Your task to perform on an android device: Search for a new lawnmower on Lowes. Image 0: 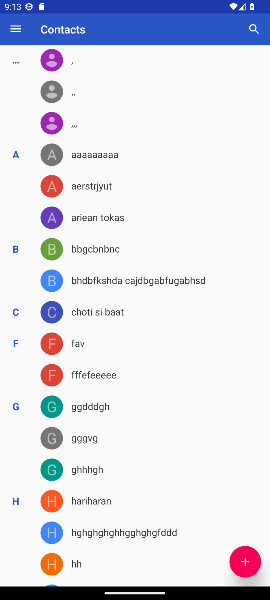
Step 0: press home button
Your task to perform on an android device: Search for a new lawnmower on Lowes. Image 1: 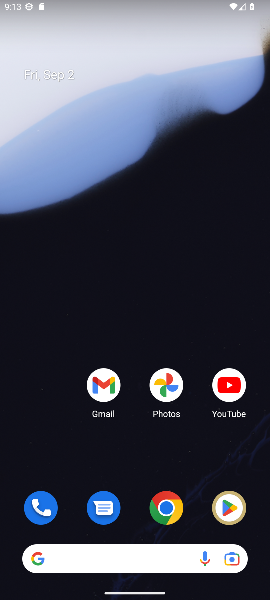
Step 1: drag from (143, 476) to (183, 95)
Your task to perform on an android device: Search for a new lawnmower on Lowes. Image 2: 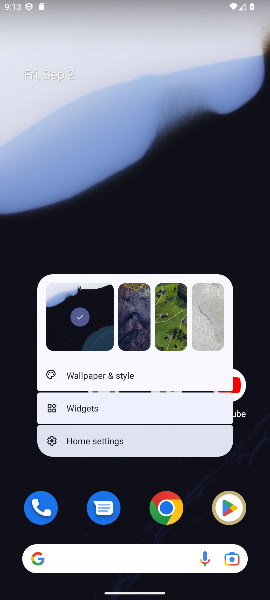
Step 2: click (179, 87)
Your task to perform on an android device: Search for a new lawnmower on Lowes. Image 3: 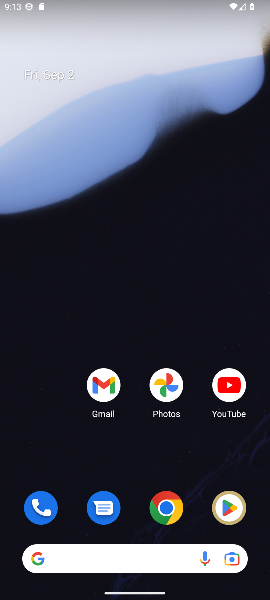
Step 3: drag from (134, 471) to (234, 0)
Your task to perform on an android device: Search for a new lawnmower on Lowes. Image 4: 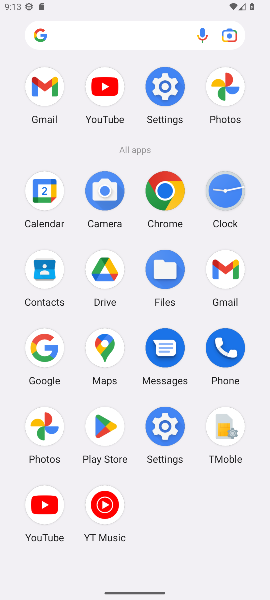
Step 4: click (170, 189)
Your task to perform on an android device: Search for a new lawnmower on Lowes. Image 5: 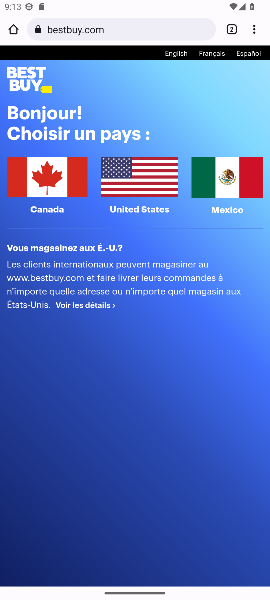
Step 5: click (106, 31)
Your task to perform on an android device: Search for a new lawnmower on Lowes. Image 6: 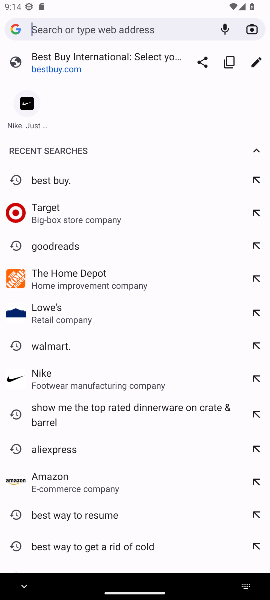
Step 6: type "Lowes"
Your task to perform on an android device: Search for a new lawnmower on Lowes. Image 7: 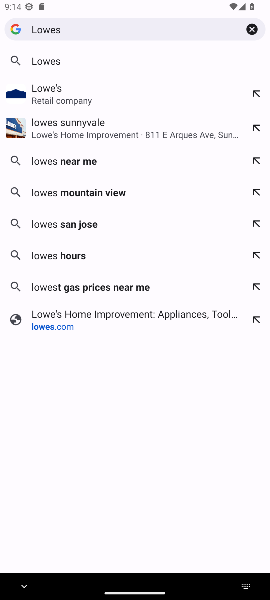
Step 7: click (48, 59)
Your task to perform on an android device: Search for a new lawnmower on Lowes. Image 8: 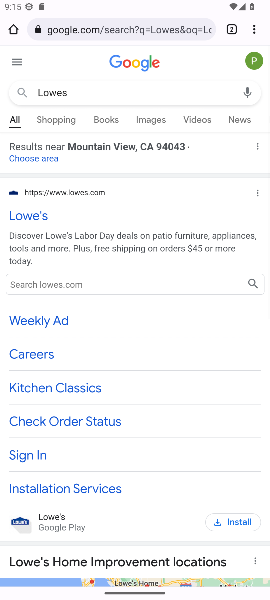
Step 8: click (28, 213)
Your task to perform on an android device: Search for a new lawnmower on Lowes. Image 9: 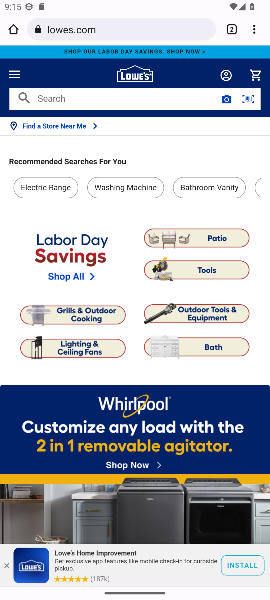
Step 9: click (69, 96)
Your task to perform on an android device: Search for a new lawnmower on Lowes. Image 10: 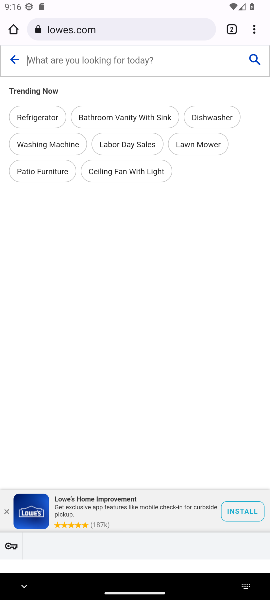
Step 10: type " new lawnmower "
Your task to perform on an android device: Search for a new lawnmower on Lowes. Image 11: 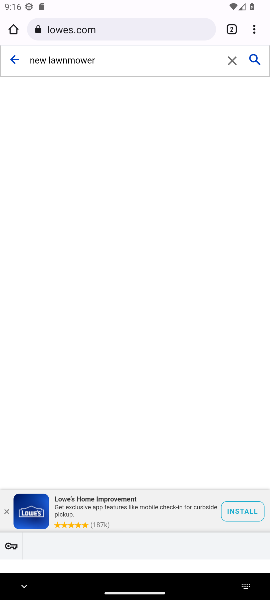
Step 11: task complete